Your task to perform on an android device: find photos in the google photos app Image 0: 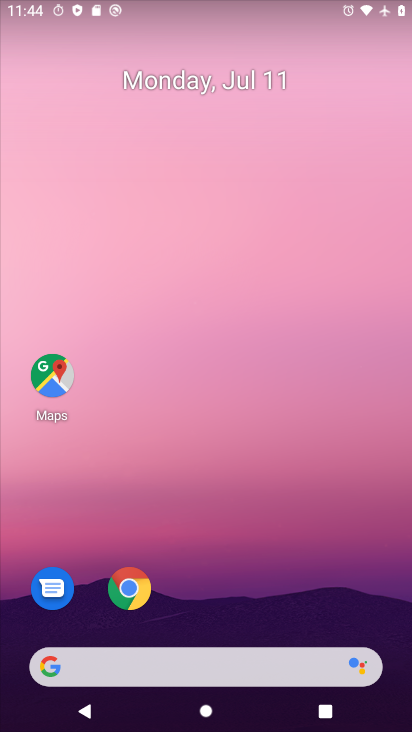
Step 0: drag from (199, 647) to (313, 121)
Your task to perform on an android device: find photos in the google photos app Image 1: 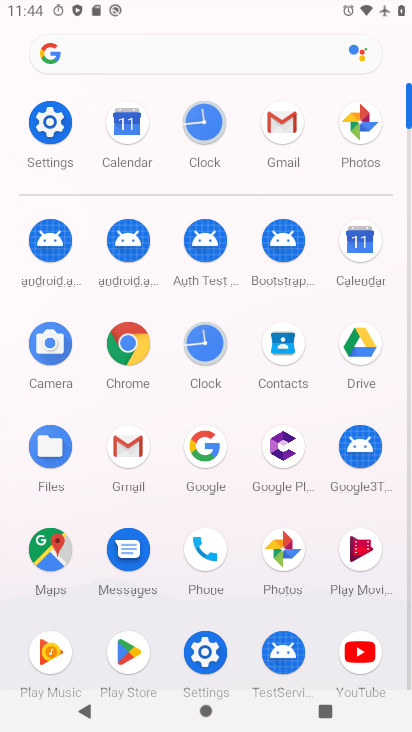
Step 1: click (359, 124)
Your task to perform on an android device: find photos in the google photos app Image 2: 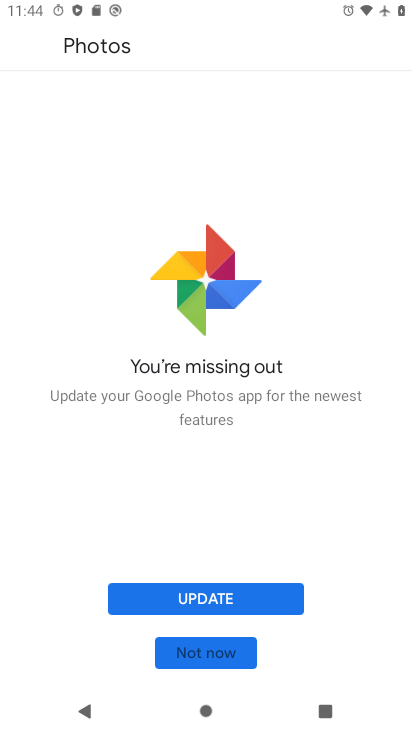
Step 2: click (234, 647)
Your task to perform on an android device: find photos in the google photos app Image 3: 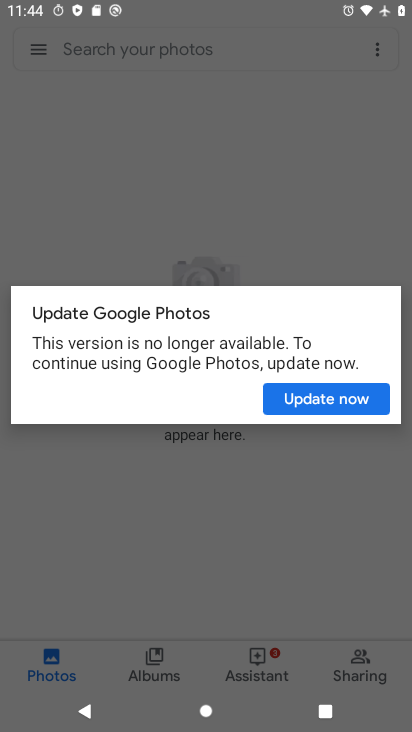
Step 3: click (337, 392)
Your task to perform on an android device: find photos in the google photos app Image 4: 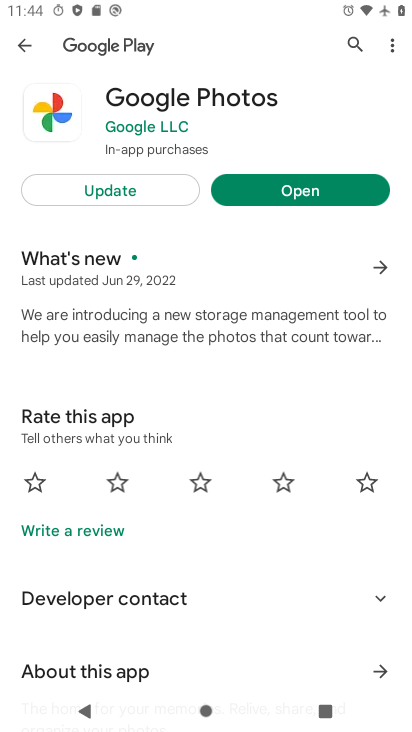
Step 4: click (333, 187)
Your task to perform on an android device: find photos in the google photos app Image 5: 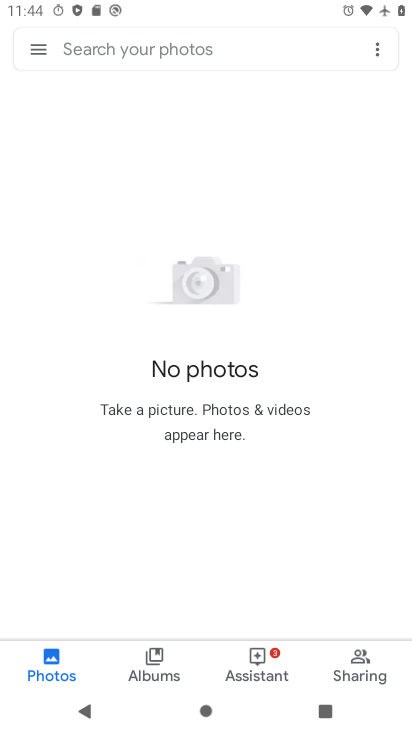
Step 5: task complete